Your task to perform on an android device: allow cookies in the chrome app Image 0: 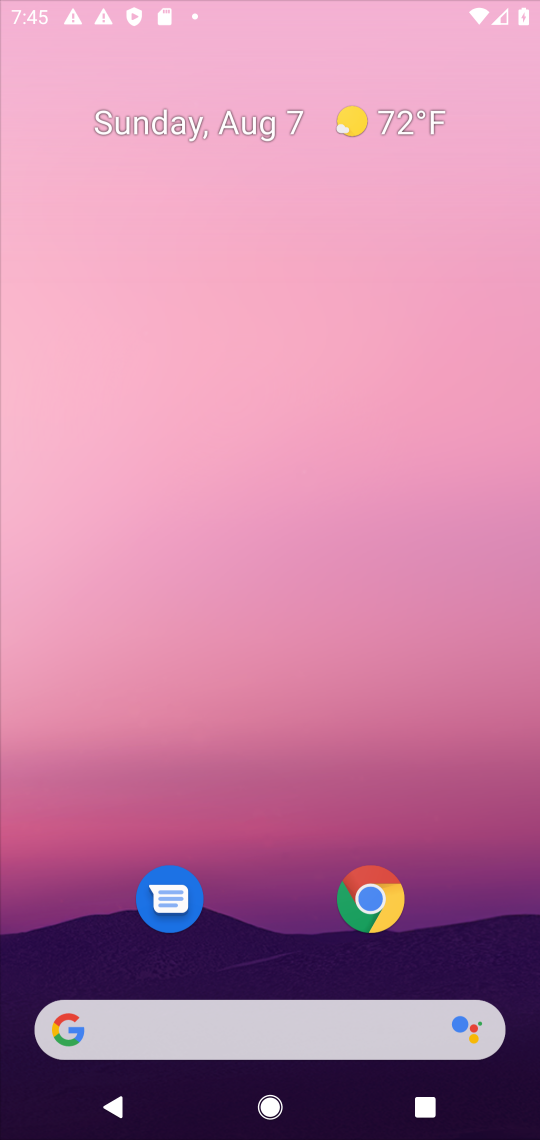
Step 0: press home button
Your task to perform on an android device: allow cookies in the chrome app Image 1: 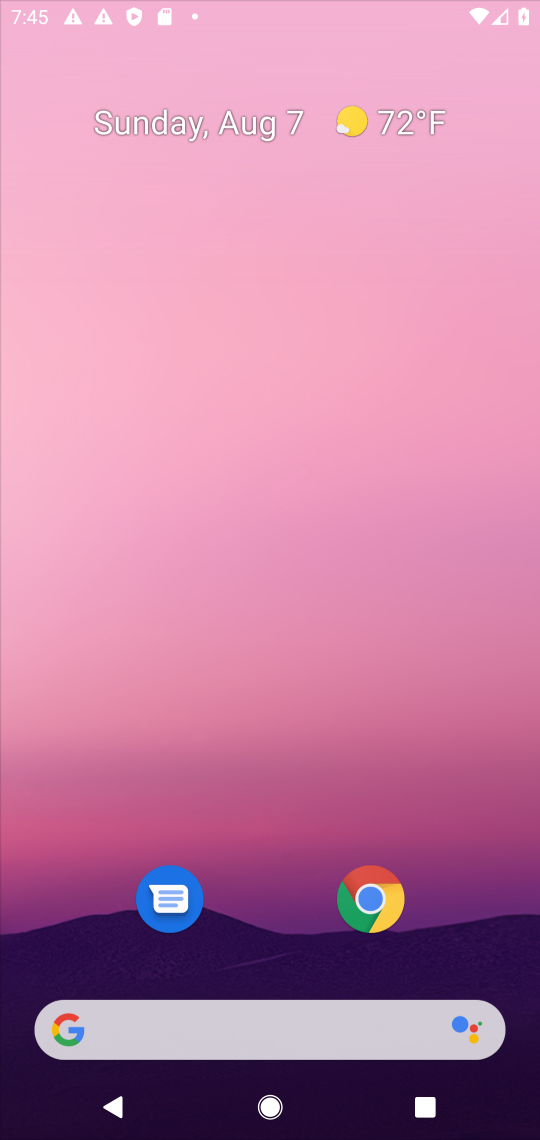
Step 1: click (365, 255)
Your task to perform on an android device: allow cookies in the chrome app Image 2: 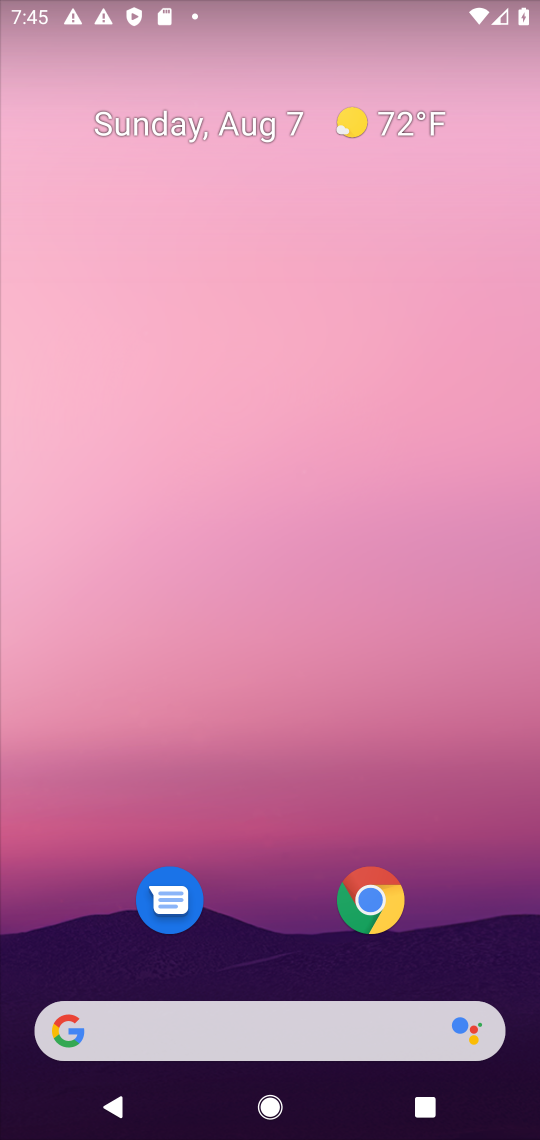
Step 2: click (383, 913)
Your task to perform on an android device: allow cookies in the chrome app Image 3: 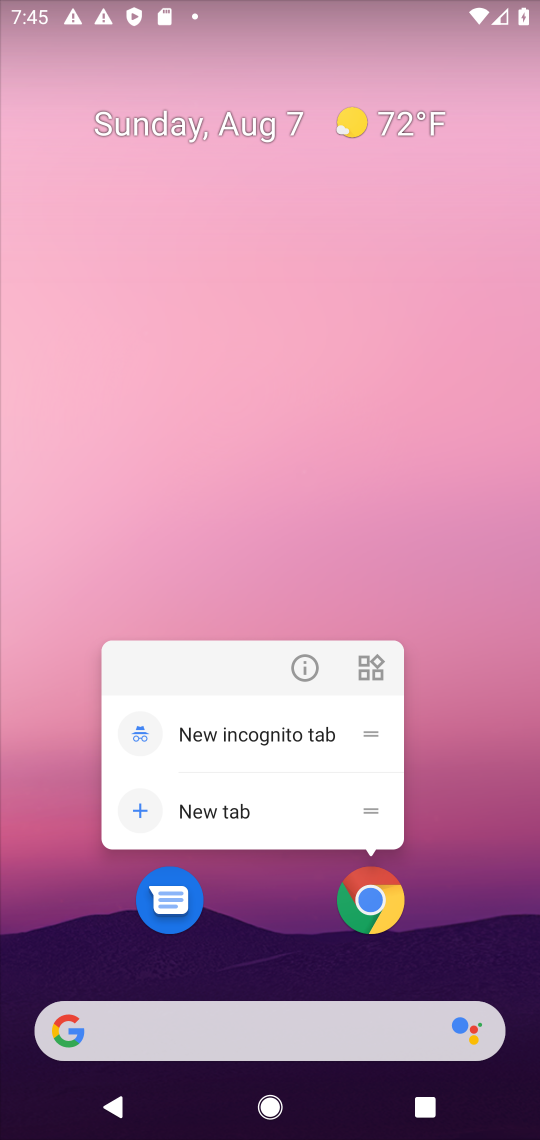
Step 3: click (370, 896)
Your task to perform on an android device: allow cookies in the chrome app Image 4: 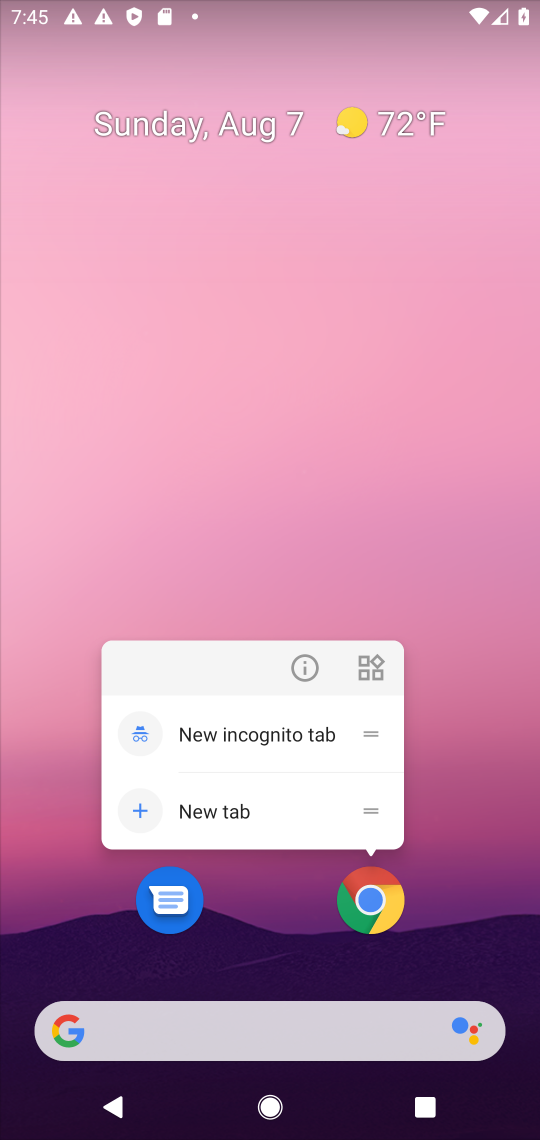
Step 4: click (370, 897)
Your task to perform on an android device: allow cookies in the chrome app Image 5: 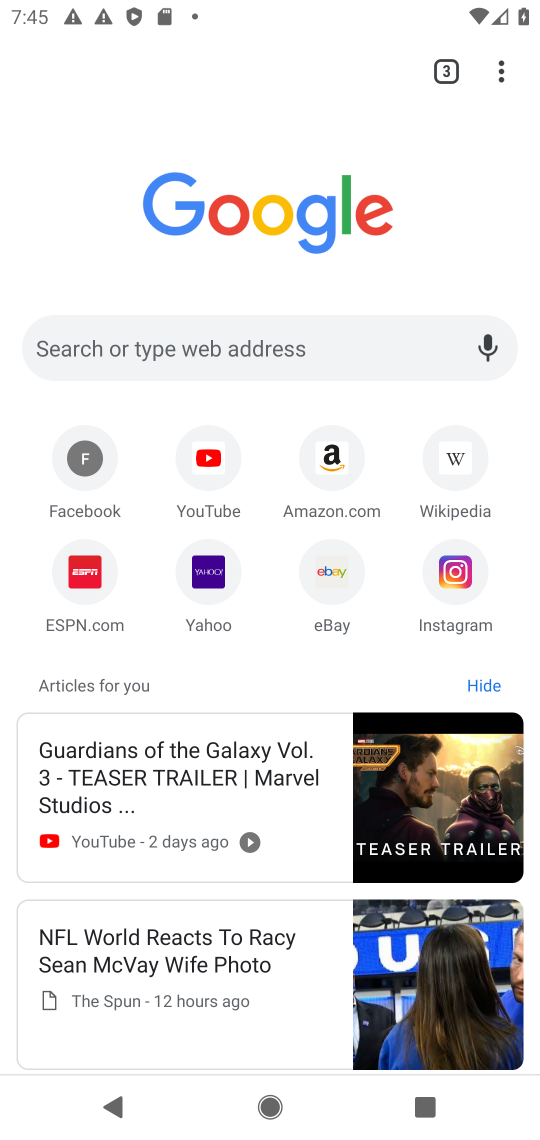
Step 5: drag from (498, 71) to (301, 606)
Your task to perform on an android device: allow cookies in the chrome app Image 6: 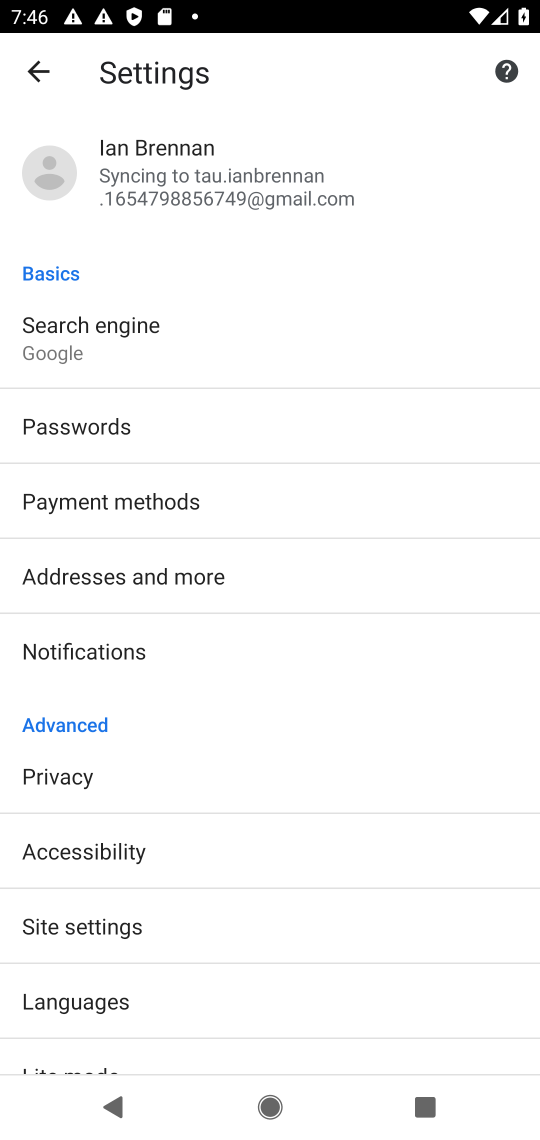
Step 6: click (171, 926)
Your task to perform on an android device: allow cookies in the chrome app Image 7: 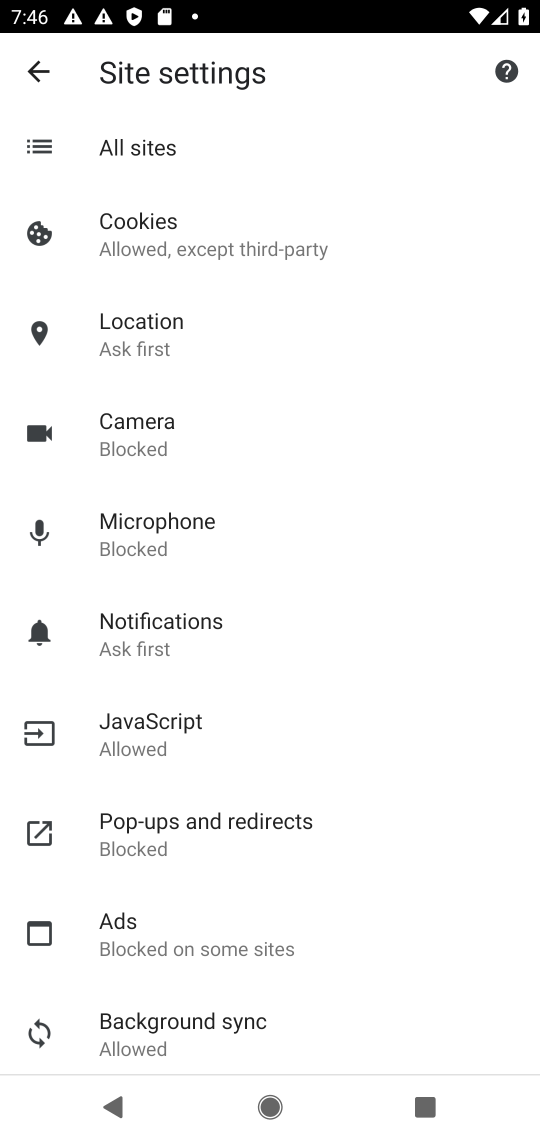
Step 7: click (189, 242)
Your task to perform on an android device: allow cookies in the chrome app Image 8: 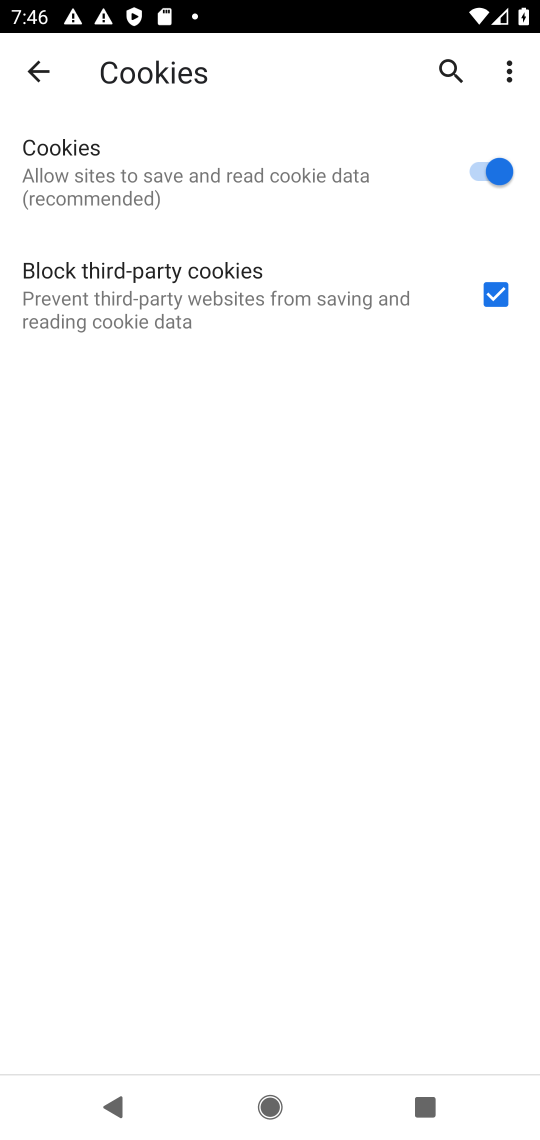
Step 8: task complete